Your task to perform on an android device: Turn on the flashlight Image 0: 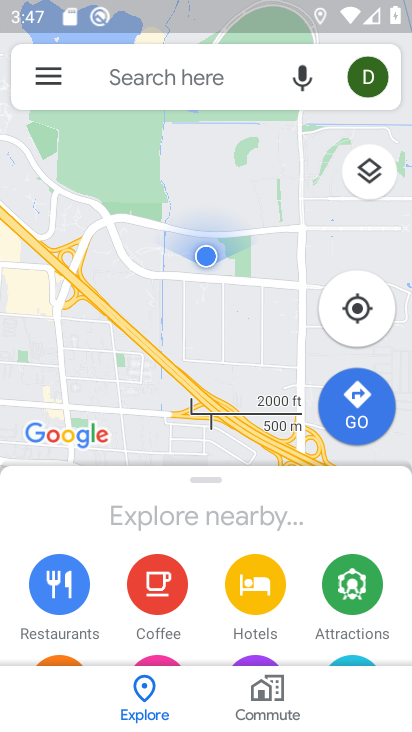
Step 0: drag from (344, 1) to (356, 589)
Your task to perform on an android device: Turn on the flashlight Image 1: 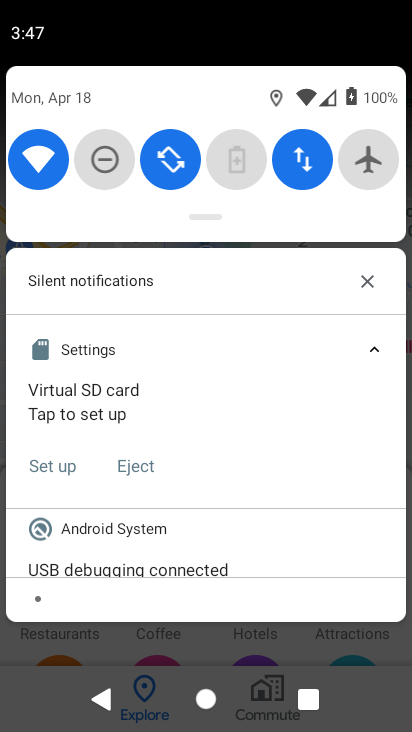
Step 1: drag from (212, 203) to (221, 571)
Your task to perform on an android device: Turn on the flashlight Image 2: 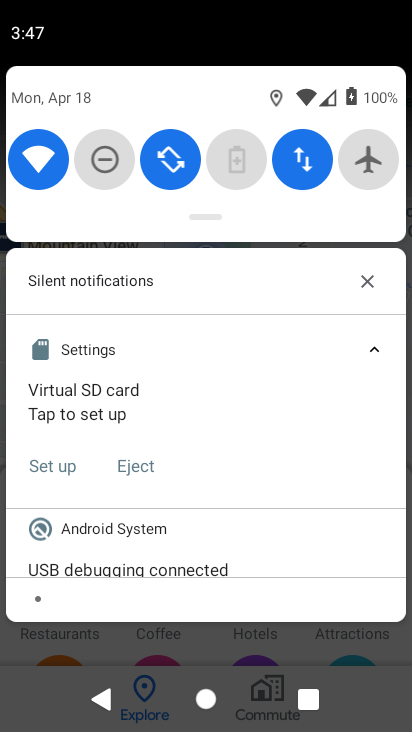
Step 2: drag from (210, 296) to (208, 623)
Your task to perform on an android device: Turn on the flashlight Image 3: 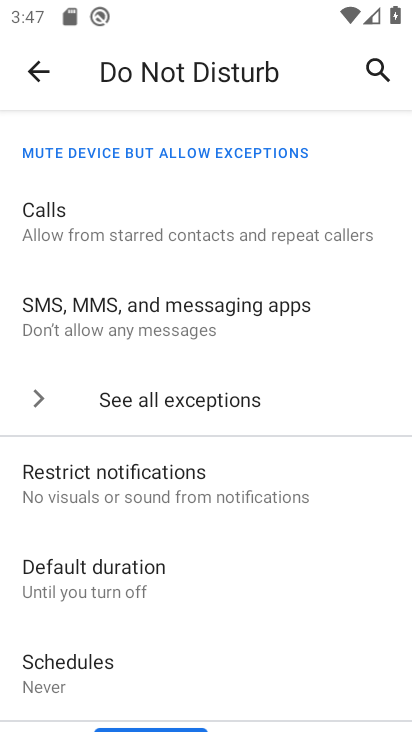
Step 3: drag from (301, 7) to (308, 592)
Your task to perform on an android device: Turn on the flashlight Image 4: 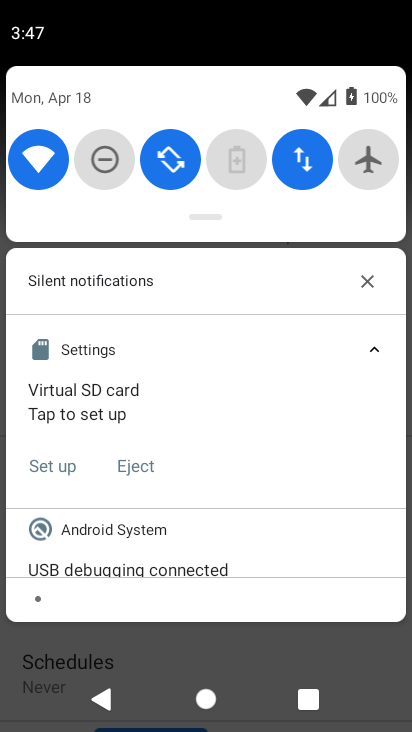
Step 4: drag from (226, 212) to (229, 678)
Your task to perform on an android device: Turn on the flashlight Image 5: 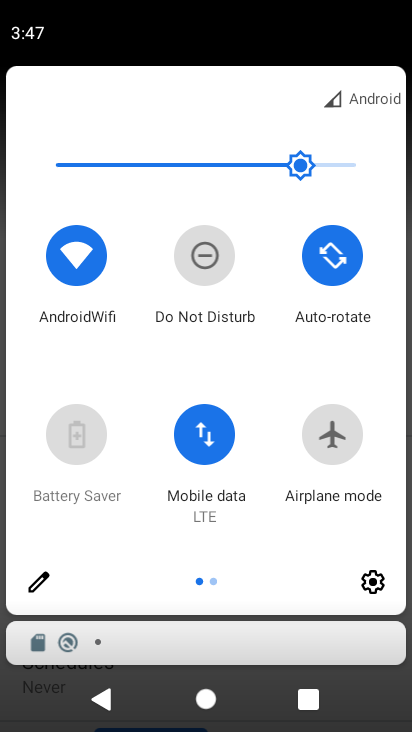
Step 5: click (37, 591)
Your task to perform on an android device: Turn on the flashlight Image 6: 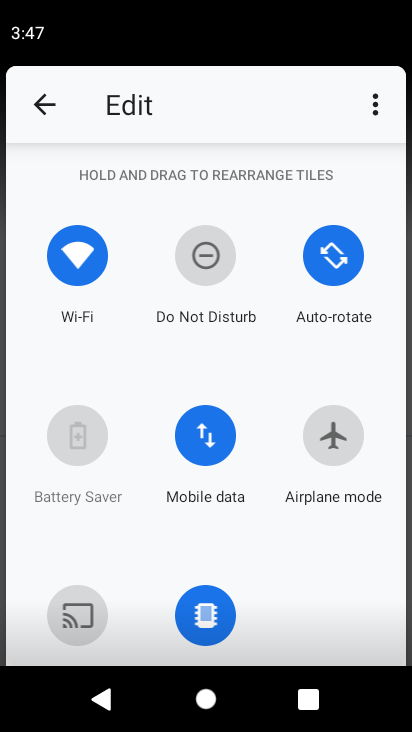
Step 6: task complete